Your task to perform on an android device: turn off smart reply in the gmail app Image 0: 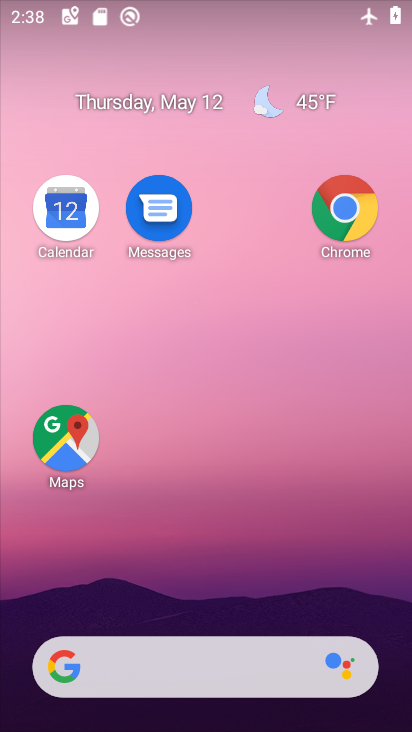
Step 0: click (203, 219)
Your task to perform on an android device: turn off smart reply in the gmail app Image 1: 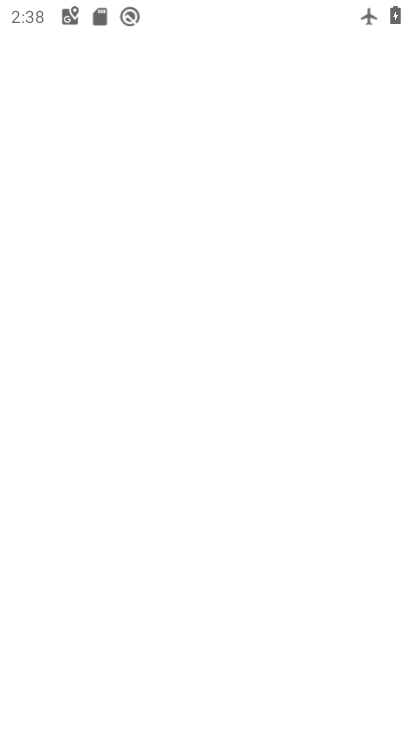
Step 1: press home button
Your task to perform on an android device: turn off smart reply in the gmail app Image 2: 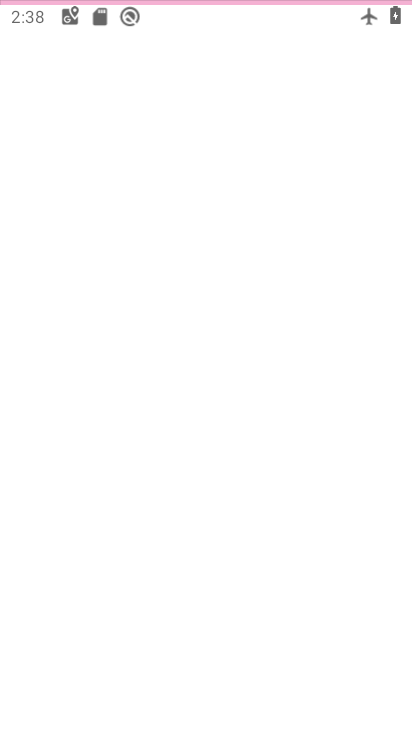
Step 2: press home button
Your task to perform on an android device: turn off smart reply in the gmail app Image 3: 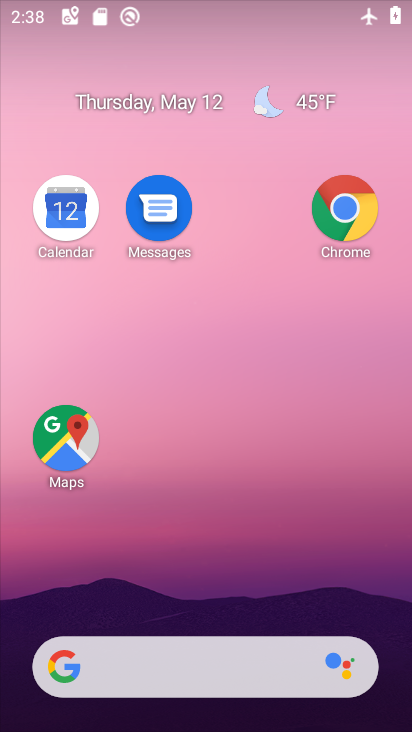
Step 3: drag from (223, 624) to (225, 206)
Your task to perform on an android device: turn off smart reply in the gmail app Image 4: 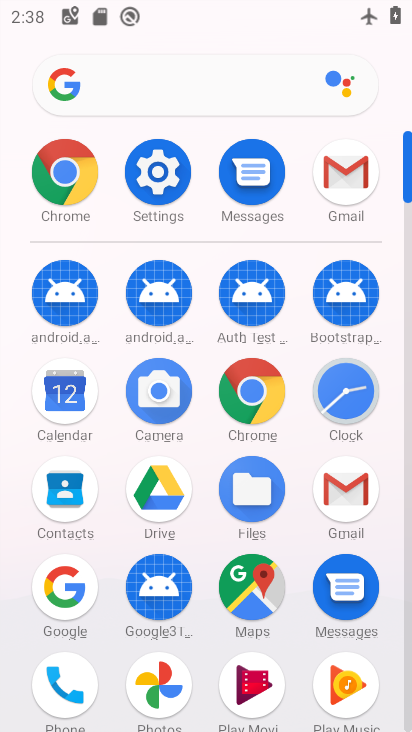
Step 4: click (349, 483)
Your task to perform on an android device: turn off smart reply in the gmail app Image 5: 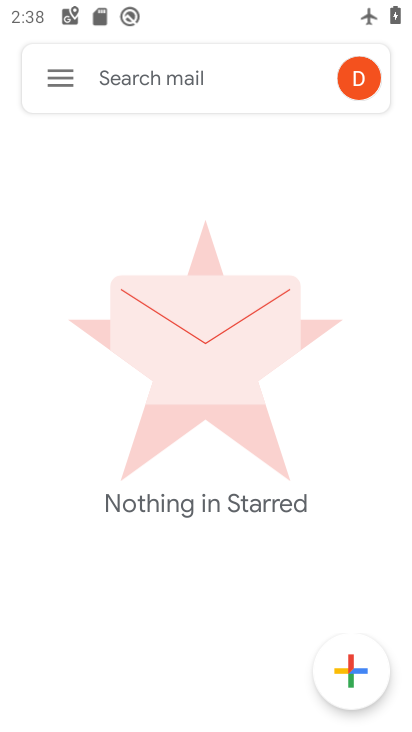
Step 5: click (55, 78)
Your task to perform on an android device: turn off smart reply in the gmail app Image 6: 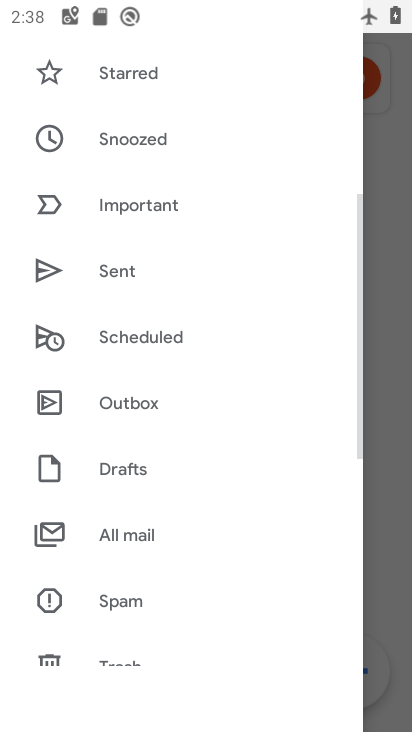
Step 6: drag from (176, 608) to (237, 0)
Your task to perform on an android device: turn off smart reply in the gmail app Image 7: 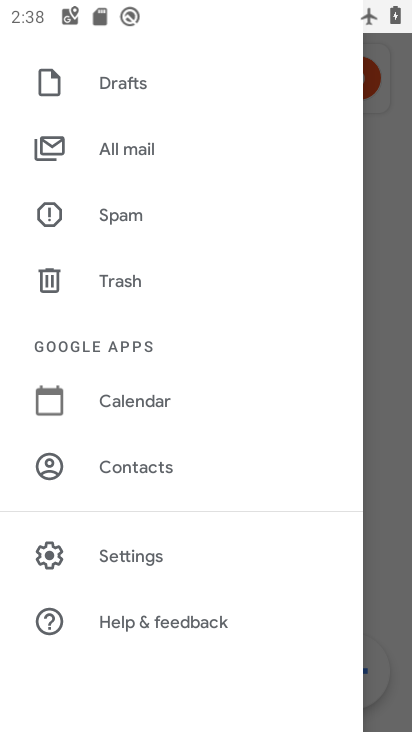
Step 7: click (141, 551)
Your task to perform on an android device: turn off smart reply in the gmail app Image 8: 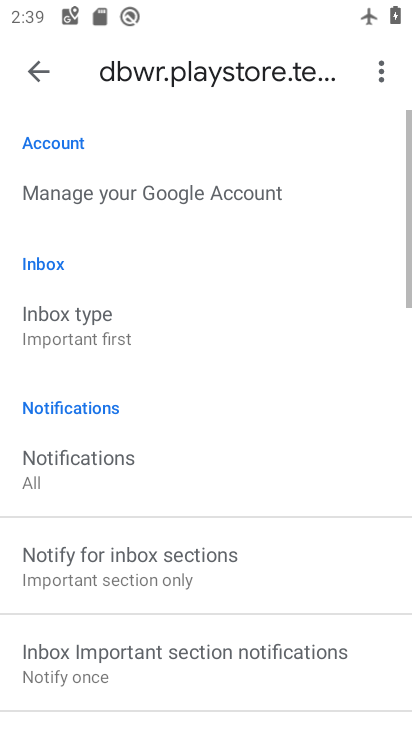
Step 8: task complete